Your task to perform on an android device: turn off data saver in the chrome app Image 0: 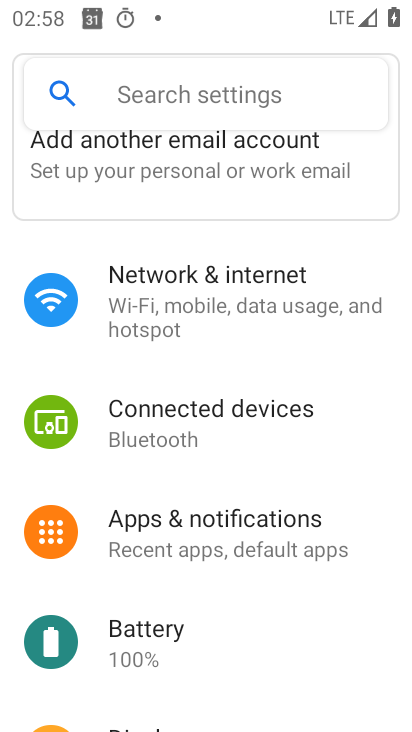
Step 0: press back button
Your task to perform on an android device: turn off data saver in the chrome app Image 1: 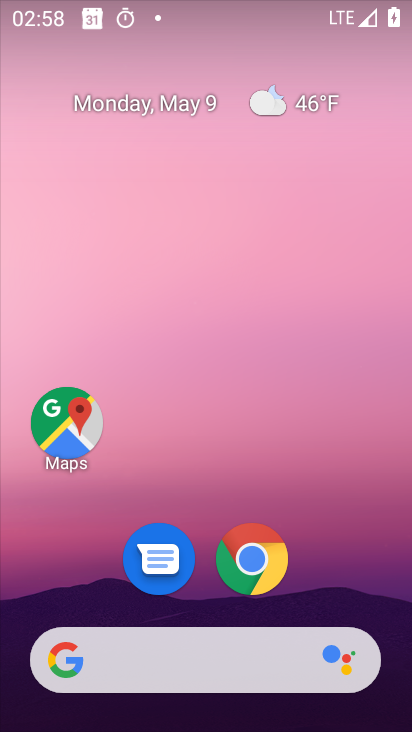
Step 1: click (251, 559)
Your task to perform on an android device: turn off data saver in the chrome app Image 2: 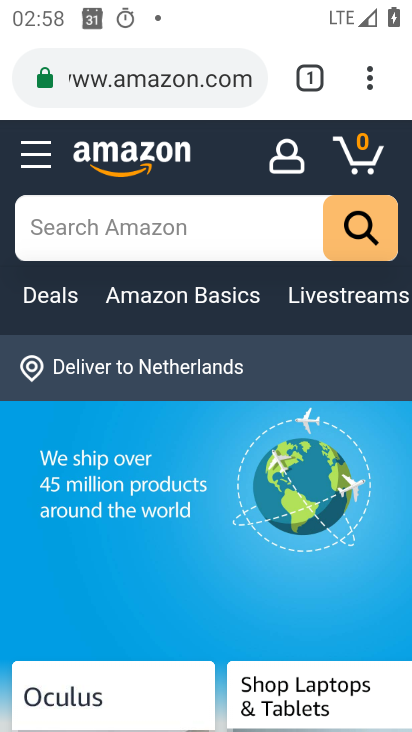
Step 2: click (370, 78)
Your task to perform on an android device: turn off data saver in the chrome app Image 3: 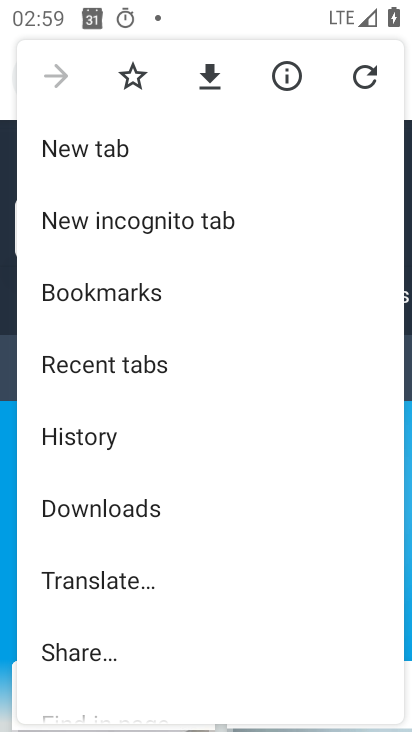
Step 3: drag from (162, 608) to (215, 483)
Your task to perform on an android device: turn off data saver in the chrome app Image 4: 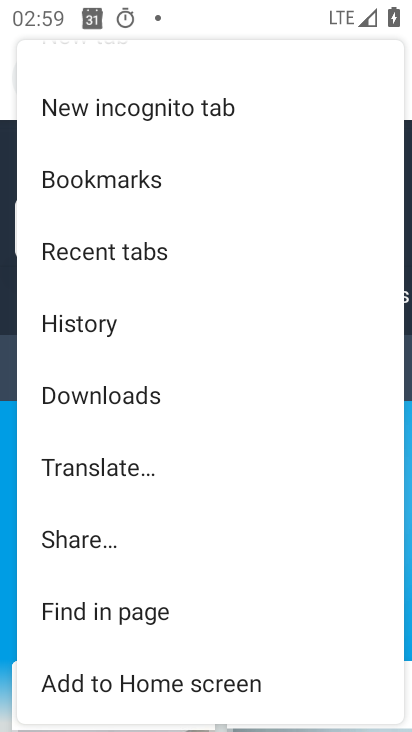
Step 4: drag from (193, 632) to (233, 557)
Your task to perform on an android device: turn off data saver in the chrome app Image 5: 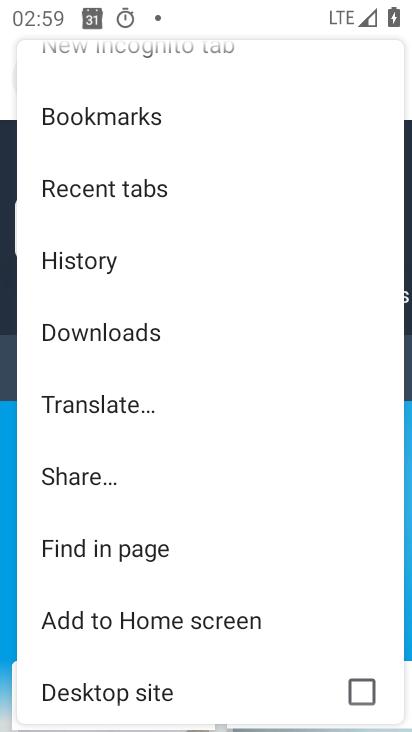
Step 5: drag from (195, 594) to (254, 482)
Your task to perform on an android device: turn off data saver in the chrome app Image 6: 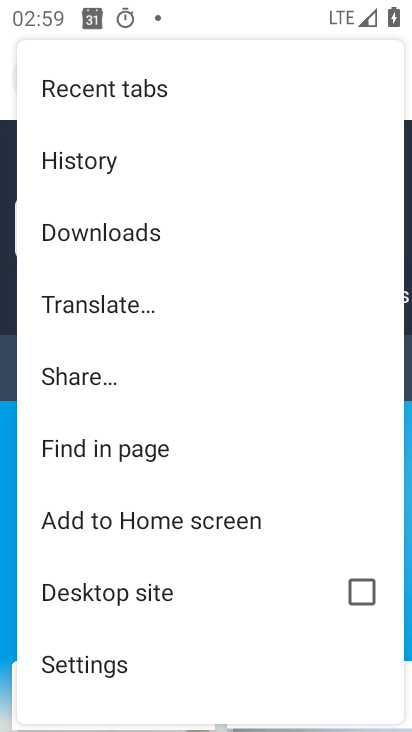
Step 6: click (106, 654)
Your task to perform on an android device: turn off data saver in the chrome app Image 7: 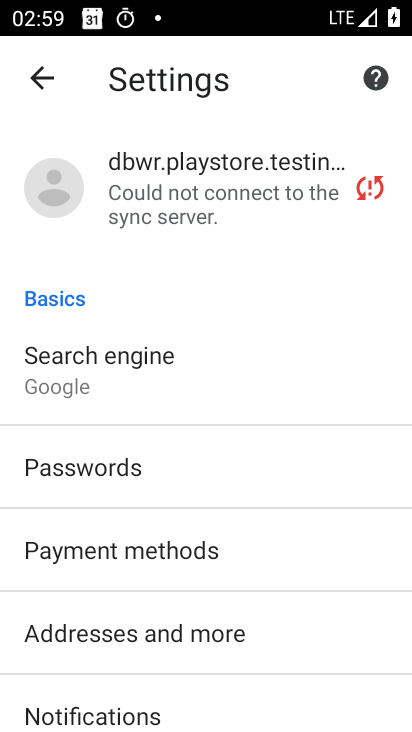
Step 7: drag from (207, 706) to (269, 534)
Your task to perform on an android device: turn off data saver in the chrome app Image 8: 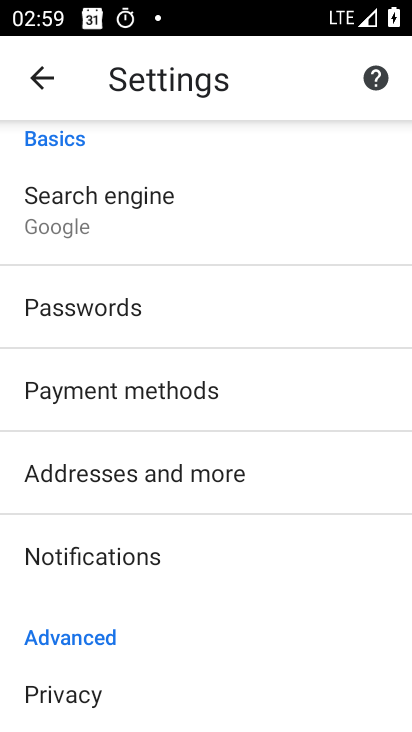
Step 8: drag from (159, 666) to (162, 506)
Your task to perform on an android device: turn off data saver in the chrome app Image 9: 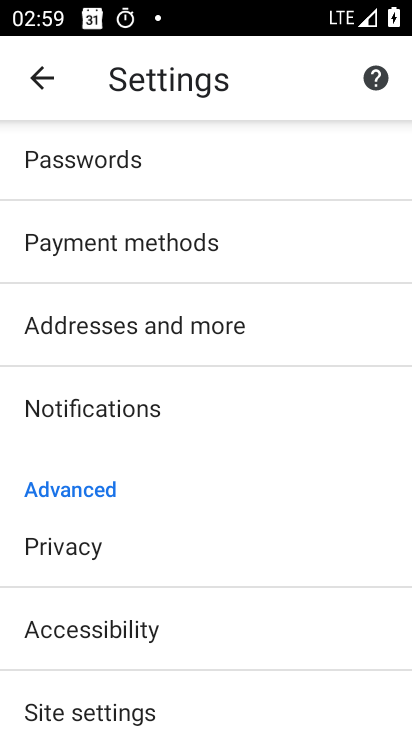
Step 9: drag from (156, 668) to (246, 489)
Your task to perform on an android device: turn off data saver in the chrome app Image 10: 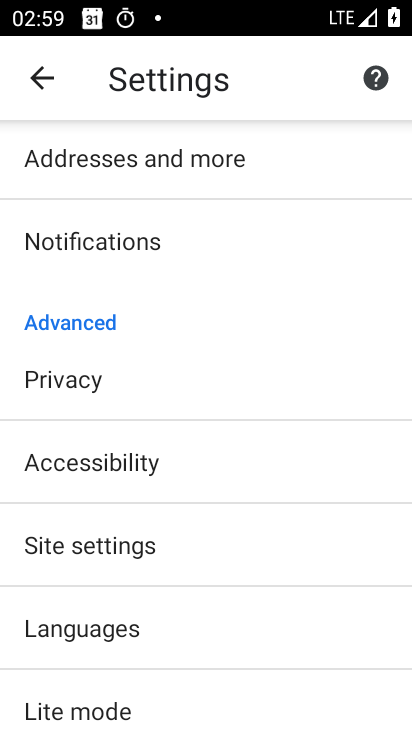
Step 10: drag from (145, 699) to (198, 607)
Your task to perform on an android device: turn off data saver in the chrome app Image 11: 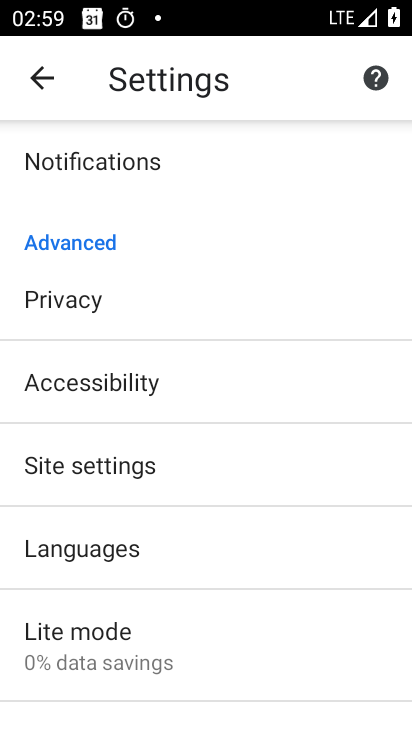
Step 11: click (76, 639)
Your task to perform on an android device: turn off data saver in the chrome app Image 12: 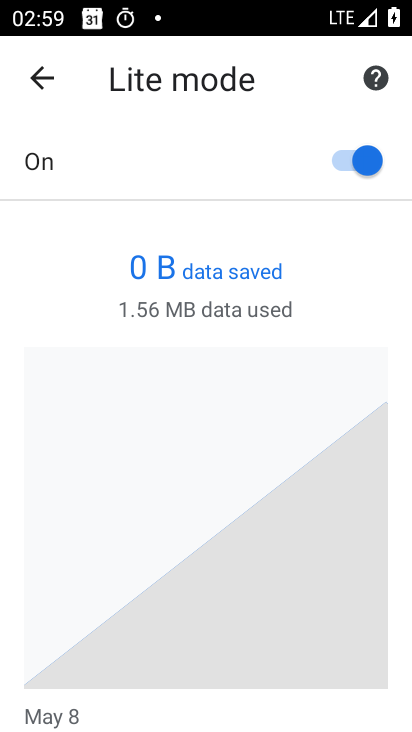
Step 12: click (371, 169)
Your task to perform on an android device: turn off data saver in the chrome app Image 13: 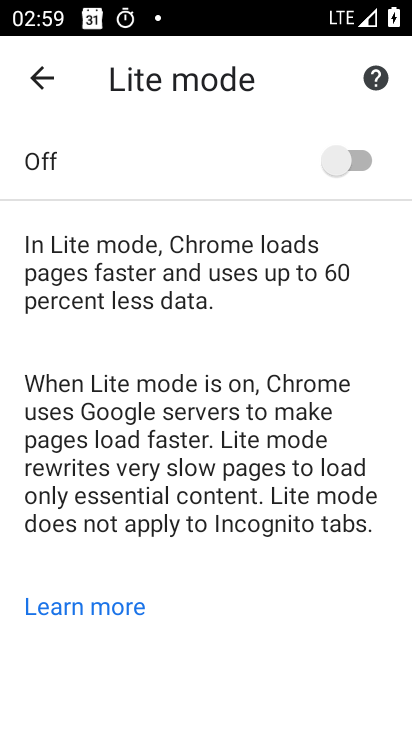
Step 13: task complete